Your task to perform on an android device: Play the last video I watched on Youtube Image 0: 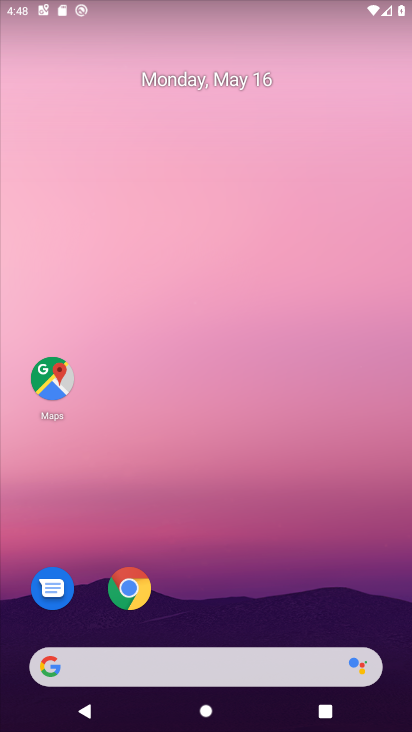
Step 0: drag from (287, 587) to (217, 60)
Your task to perform on an android device: Play the last video I watched on Youtube Image 1: 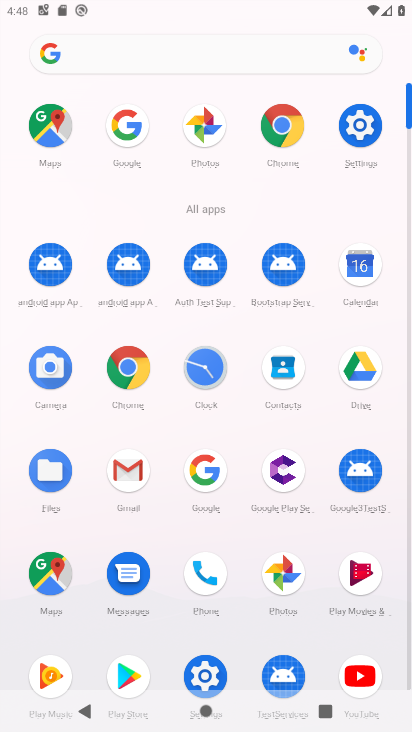
Step 1: click (366, 666)
Your task to perform on an android device: Play the last video I watched on Youtube Image 2: 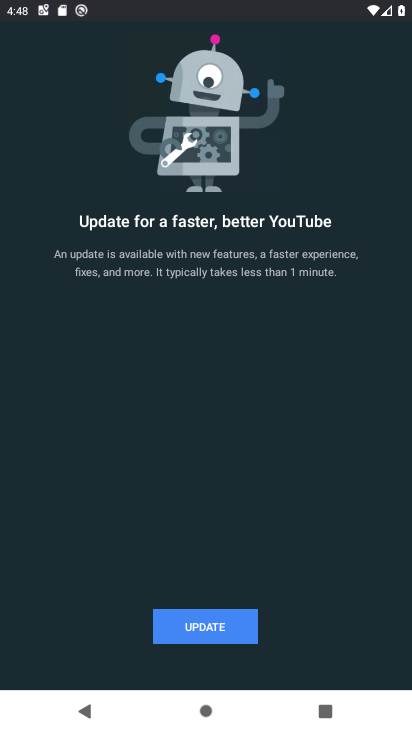
Step 2: click (227, 619)
Your task to perform on an android device: Play the last video I watched on Youtube Image 3: 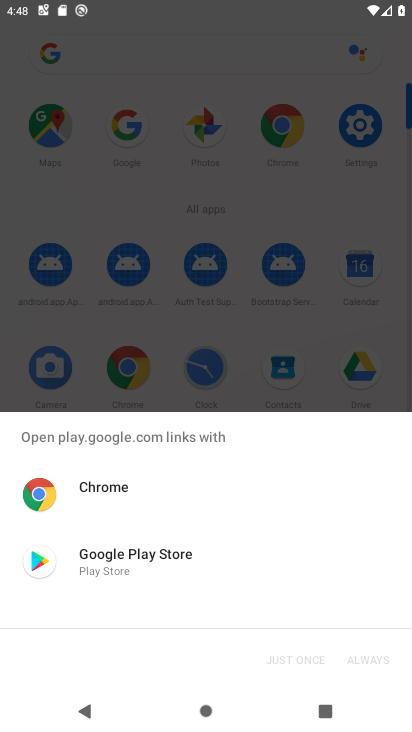
Step 3: click (140, 559)
Your task to perform on an android device: Play the last video I watched on Youtube Image 4: 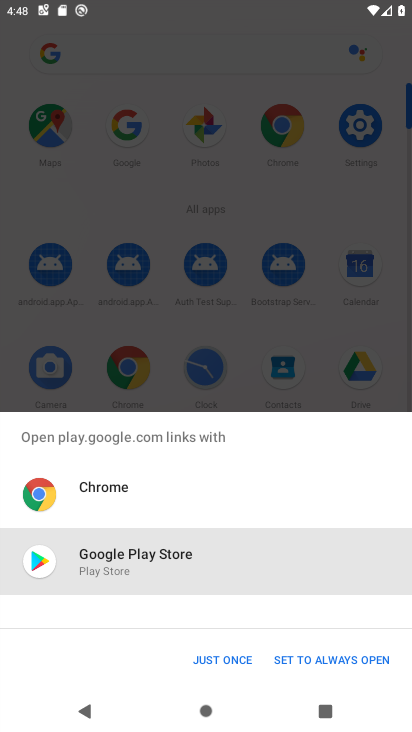
Step 4: click (232, 663)
Your task to perform on an android device: Play the last video I watched on Youtube Image 5: 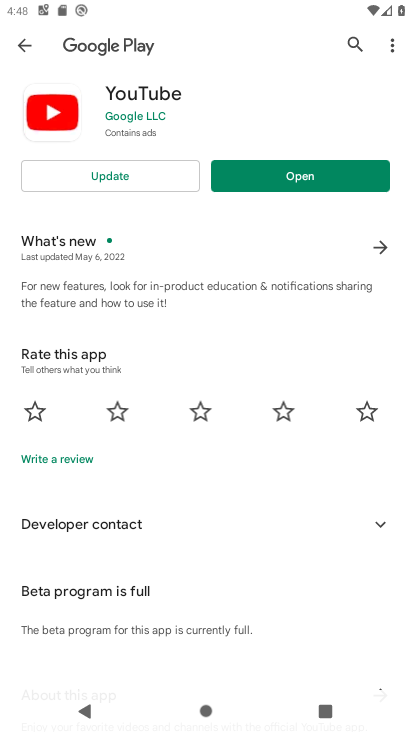
Step 5: click (159, 171)
Your task to perform on an android device: Play the last video I watched on Youtube Image 6: 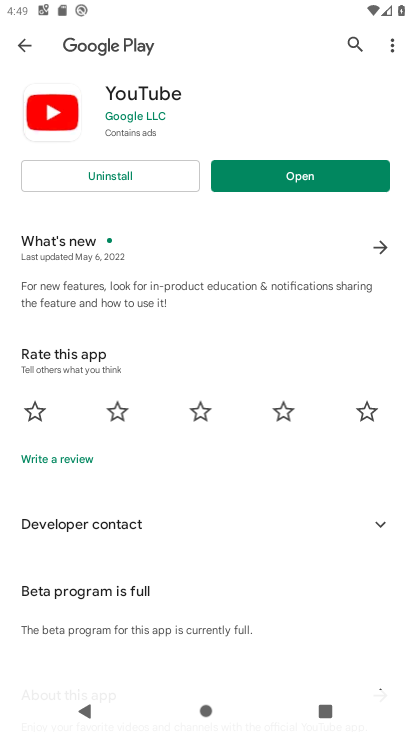
Step 6: click (298, 179)
Your task to perform on an android device: Play the last video I watched on Youtube Image 7: 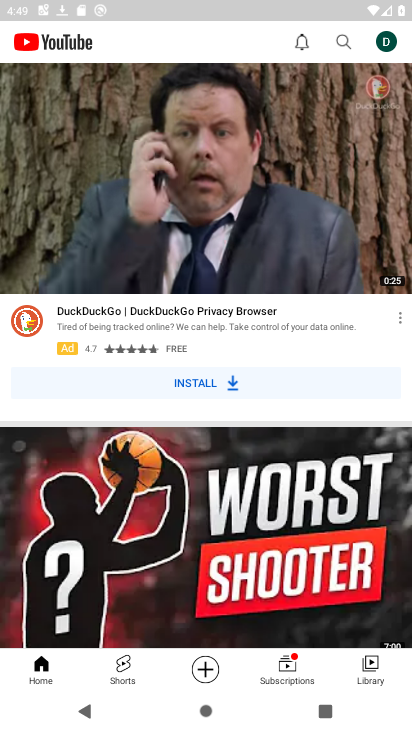
Step 7: click (373, 668)
Your task to perform on an android device: Play the last video I watched on Youtube Image 8: 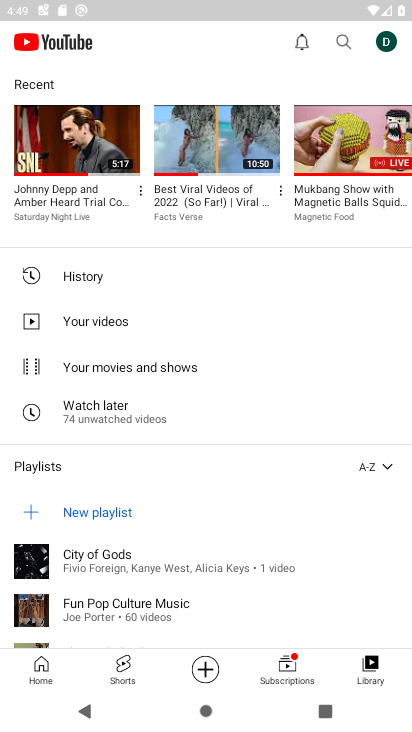
Step 8: click (79, 144)
Your task to perform on an android device: Play the last video I watched on Youtube Image 9: 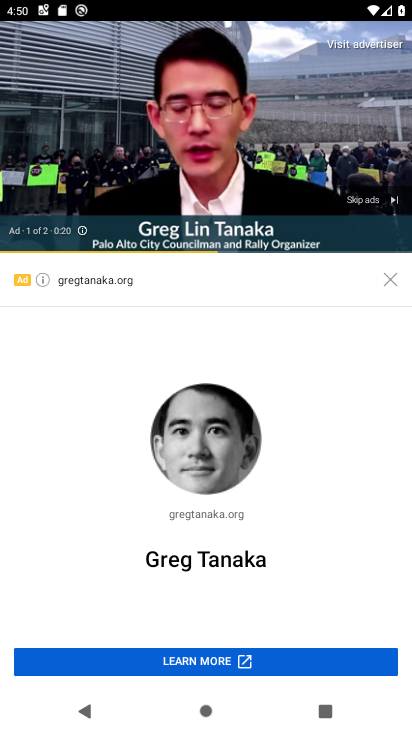
Step 9: click (204, 117)
Your task to perform on an android device: Play the last video I watched on Youtube Image 10: 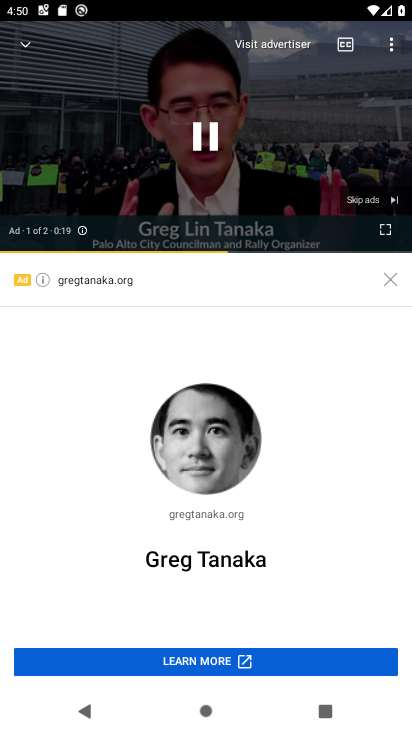
Step 10: click (204, 117)
Your task to perform on an android device: Play the last video I watched on Youtube Image 11: 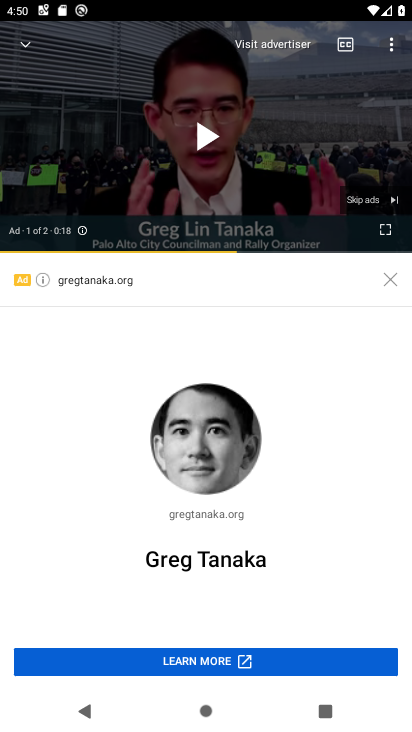
Step 11: task complete